Your task to perform on an android device: Clear the shopping cart on ebay.com. Add logitech g pro to the cart on ebay.com Image 0: 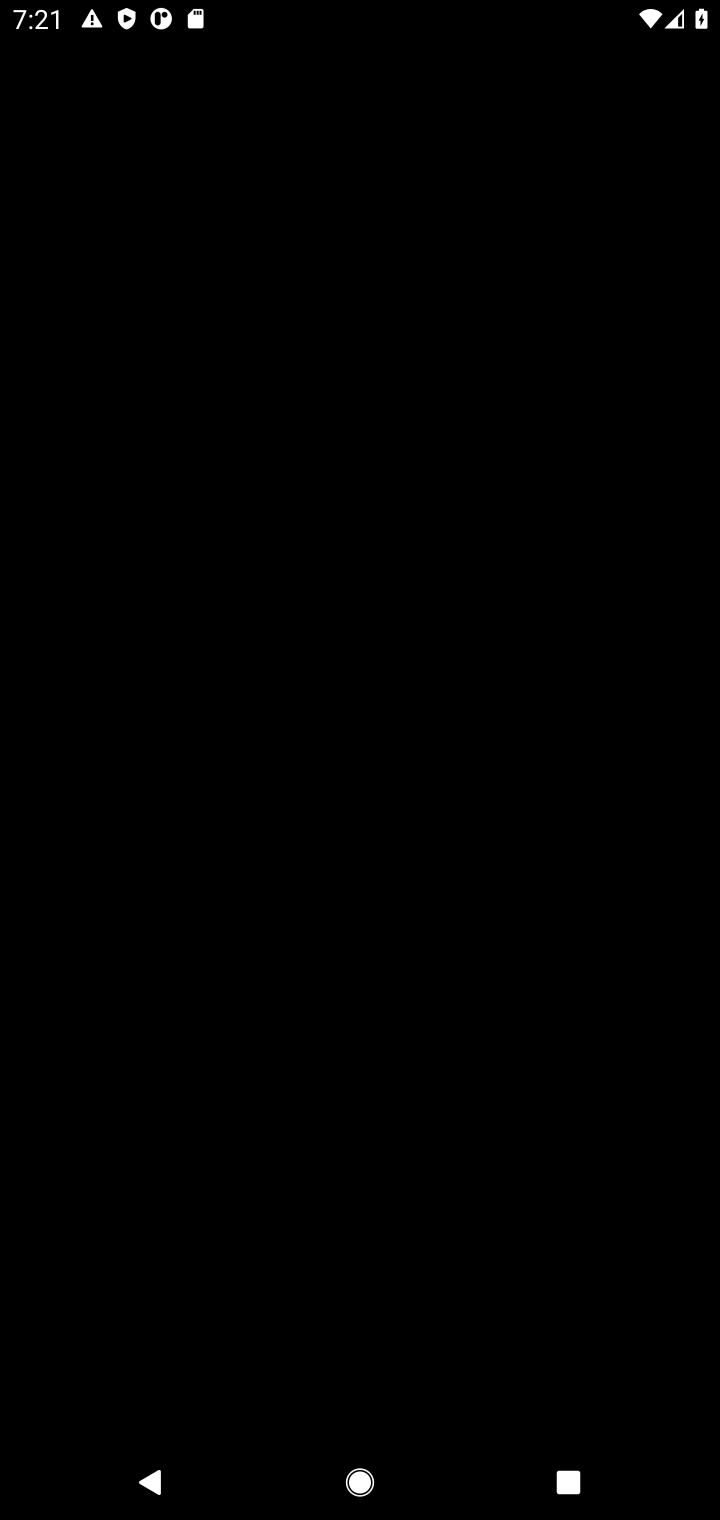
Step 0: press home button
Your task to perform on an android device: Clear the shopping cart on ebay.com. Add logitech g pro to the cart on ebay.com Image 1: 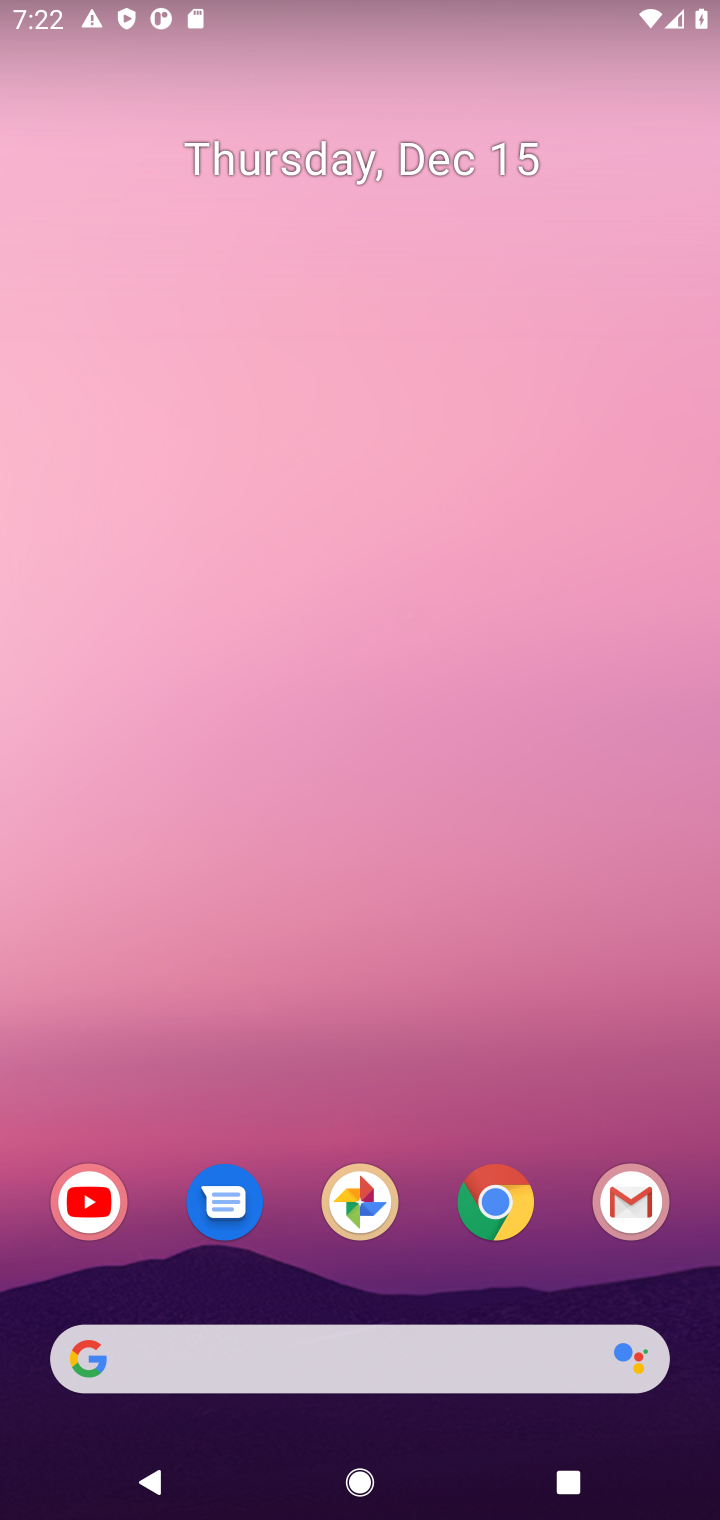
Step 1: click (494, 1221)
Your task to perform on an android device: Clear the shopping cart on ebay.com. Add logitech g pro to the cart on ebay.com Image 2: 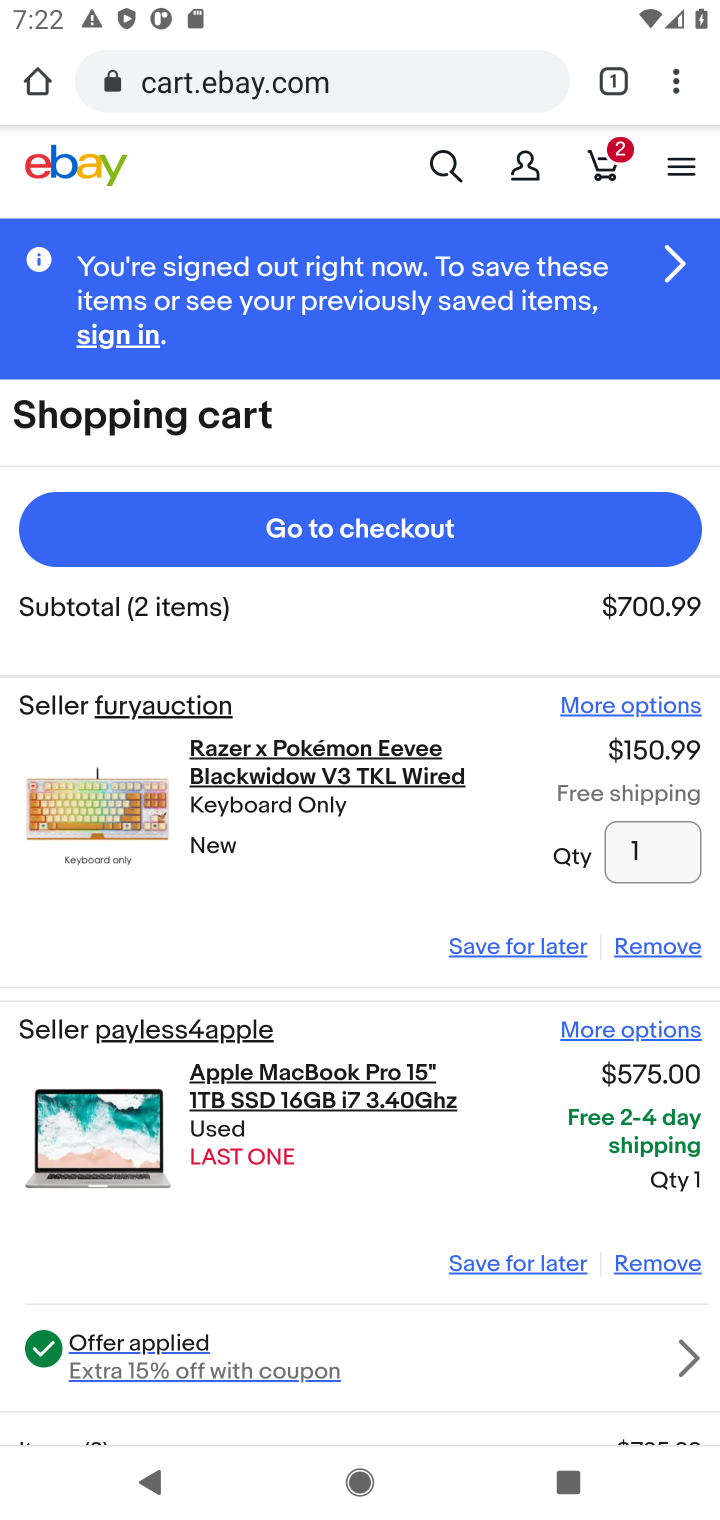
Step 2: click (624, 947)
Your task to perform on an android device: Clear the shopping cart on ebay.com. Add logitech g pro to the cart on ebay.com Image 3: 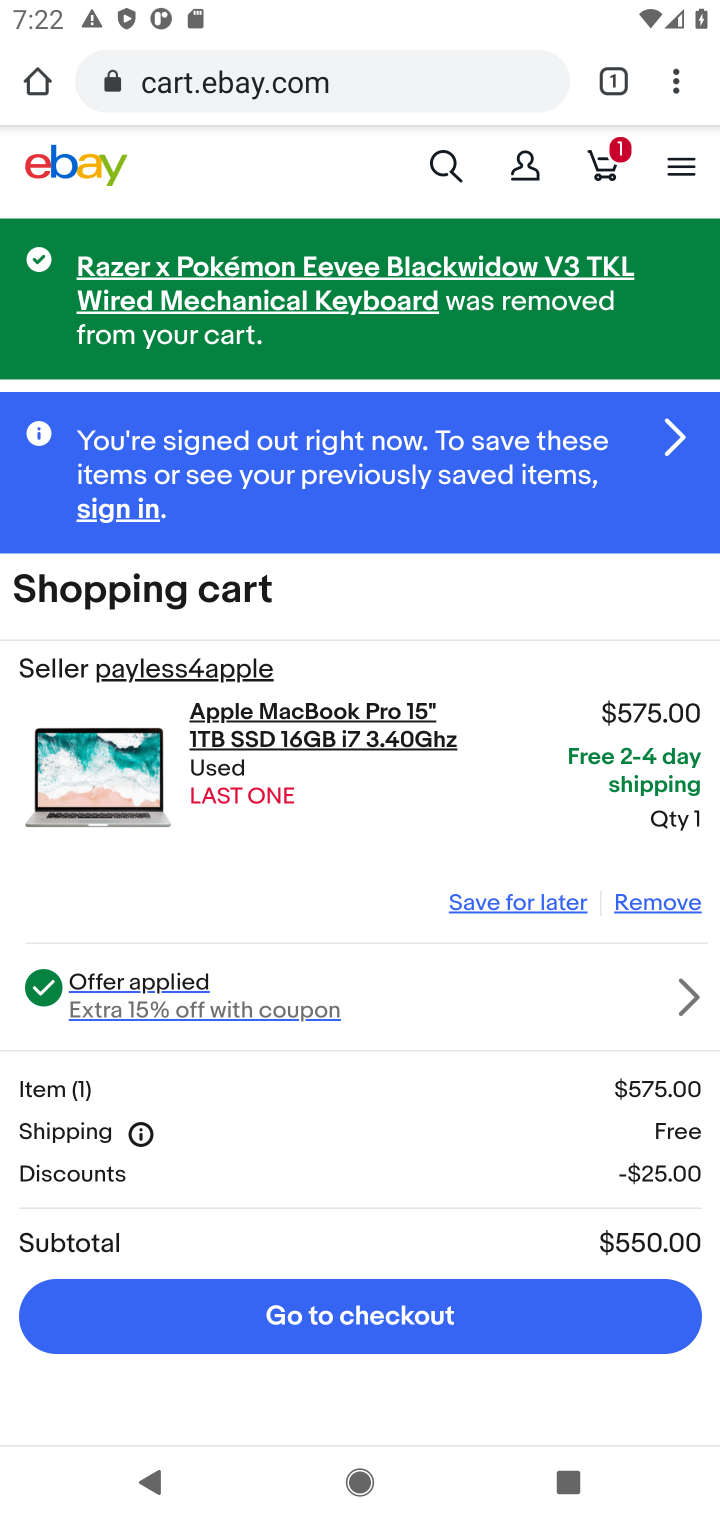
Step 3: click (651, 912)
Your task to perform on an android device: Clear the shopping cart on ebay.com. Add logitech g pro to the cart on ebay.com Image 4: 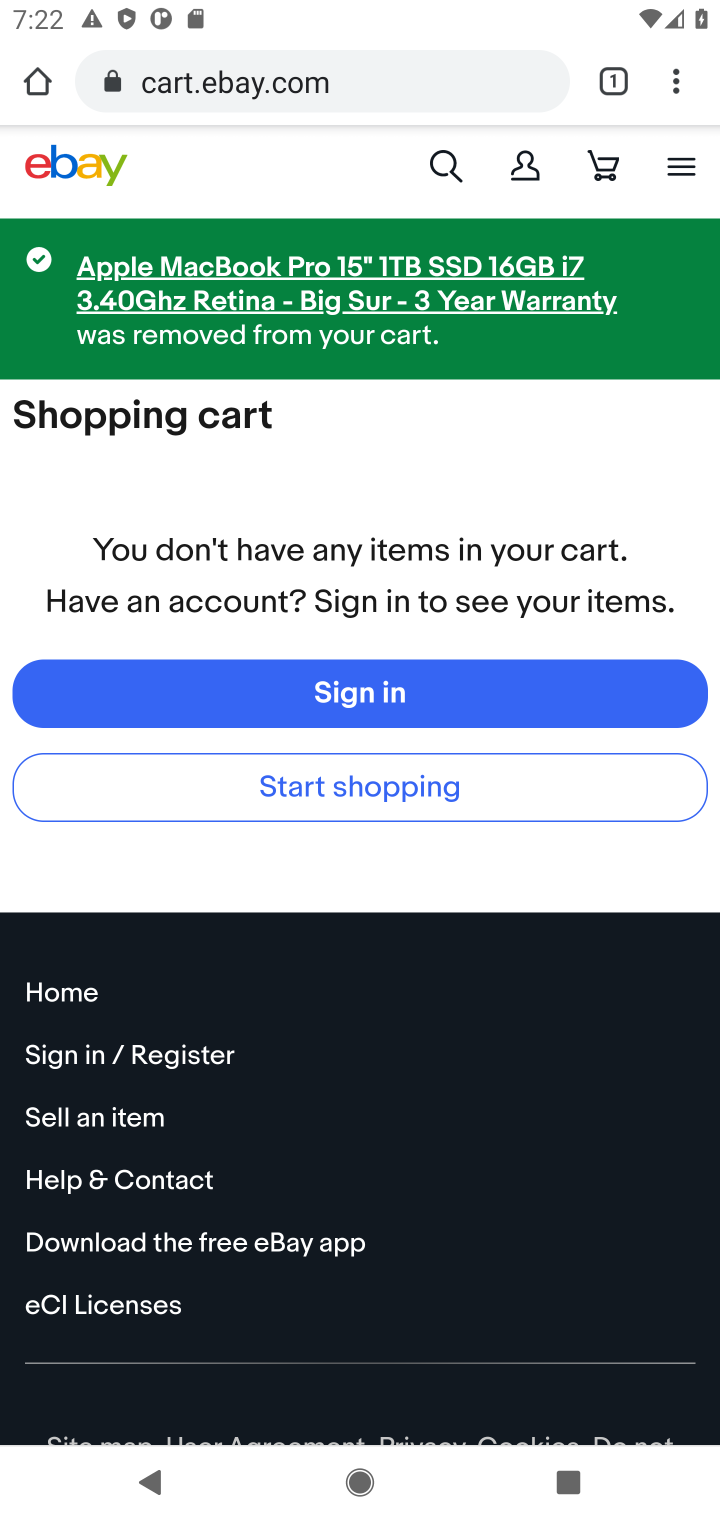
Step 4: click (447, 166)
Your task to perform on an android device: Clear the shopping cart on ebay.com. Add logitech g pro to the cart on ebay.com Image 5: 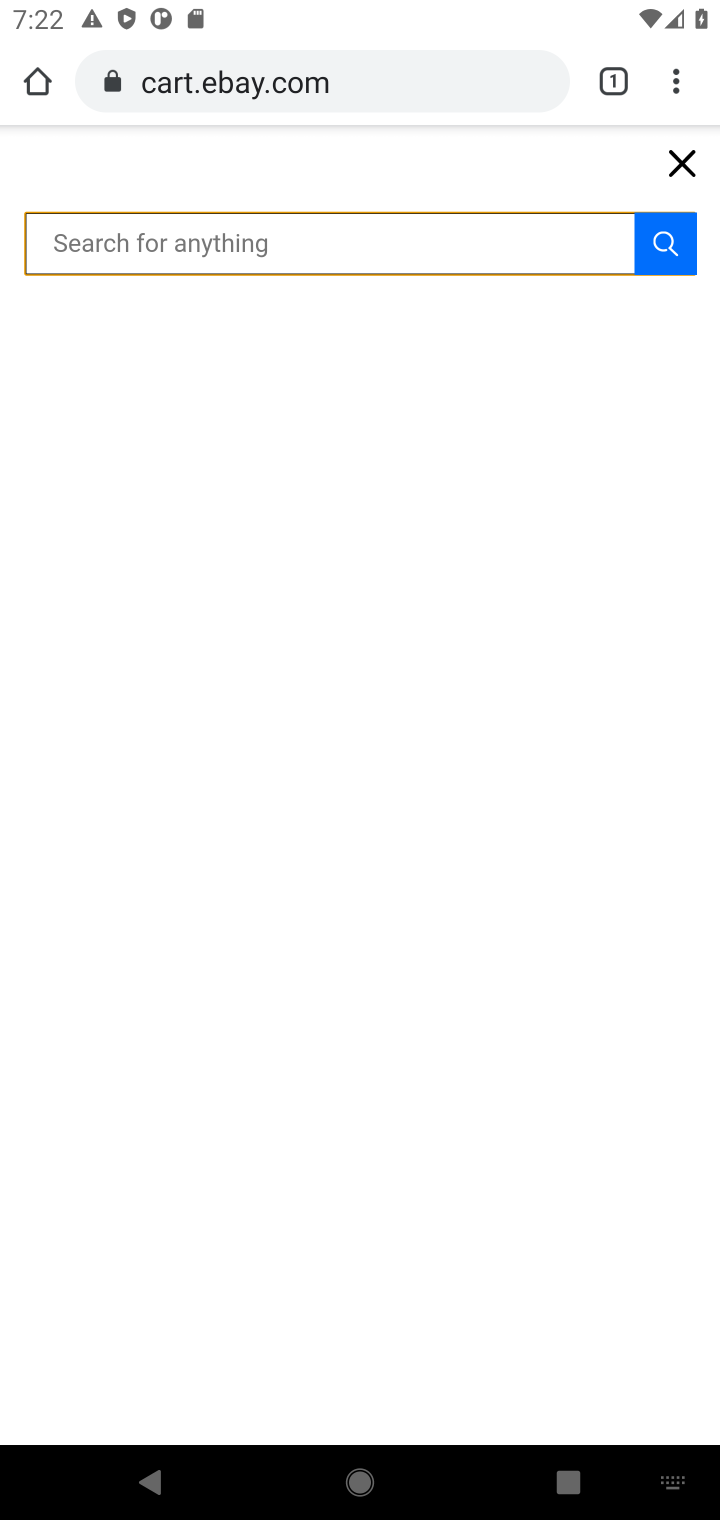
Step 5: type "logitech g pro"
Your task to perform on an android device: Clear the shopping cart on ebay.com. Add logitech g pro to the cart on ebay.com Image 6: 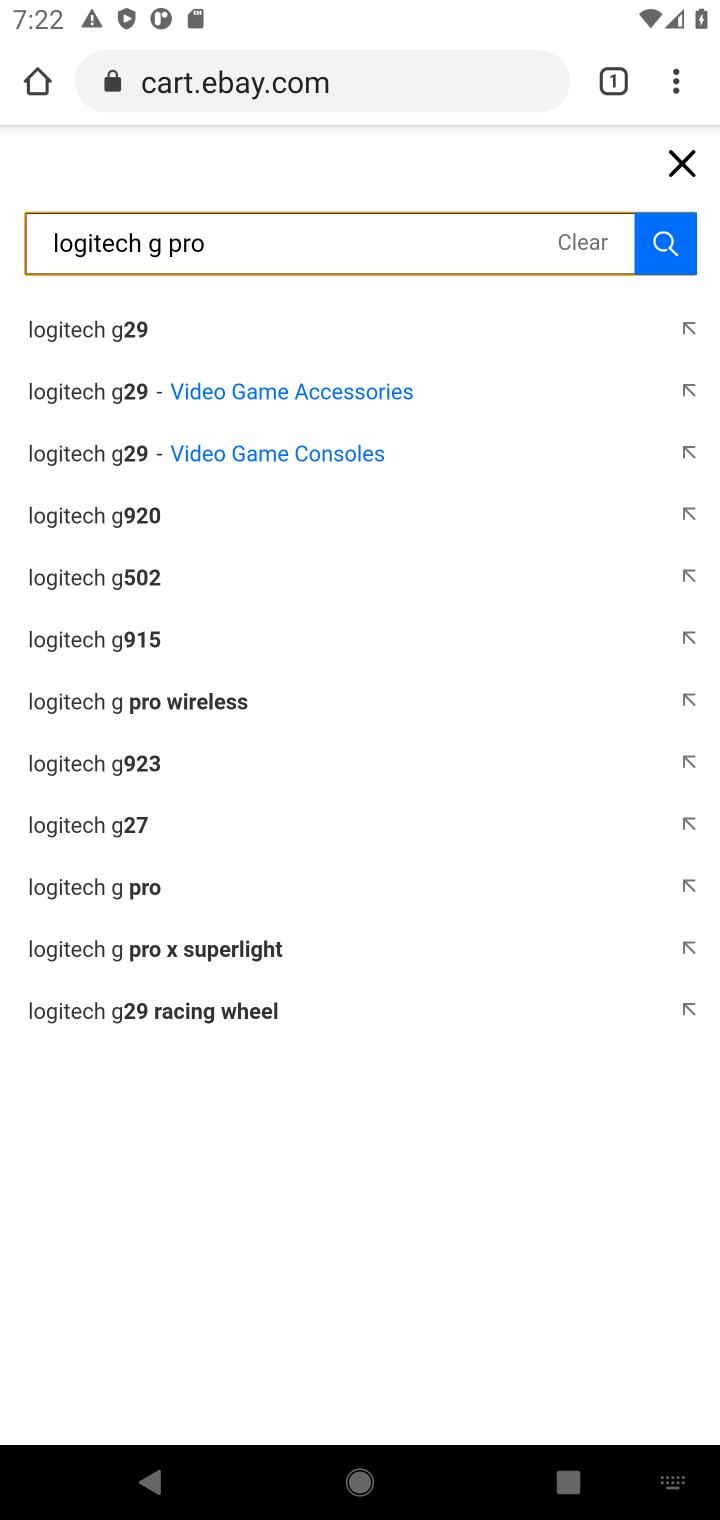
Step 6: click (98, 896)
Your task to perform on an android device: Clear the shopping cart on ebay.com. Add logitech g pro to the cart on ebay.com Image 7: 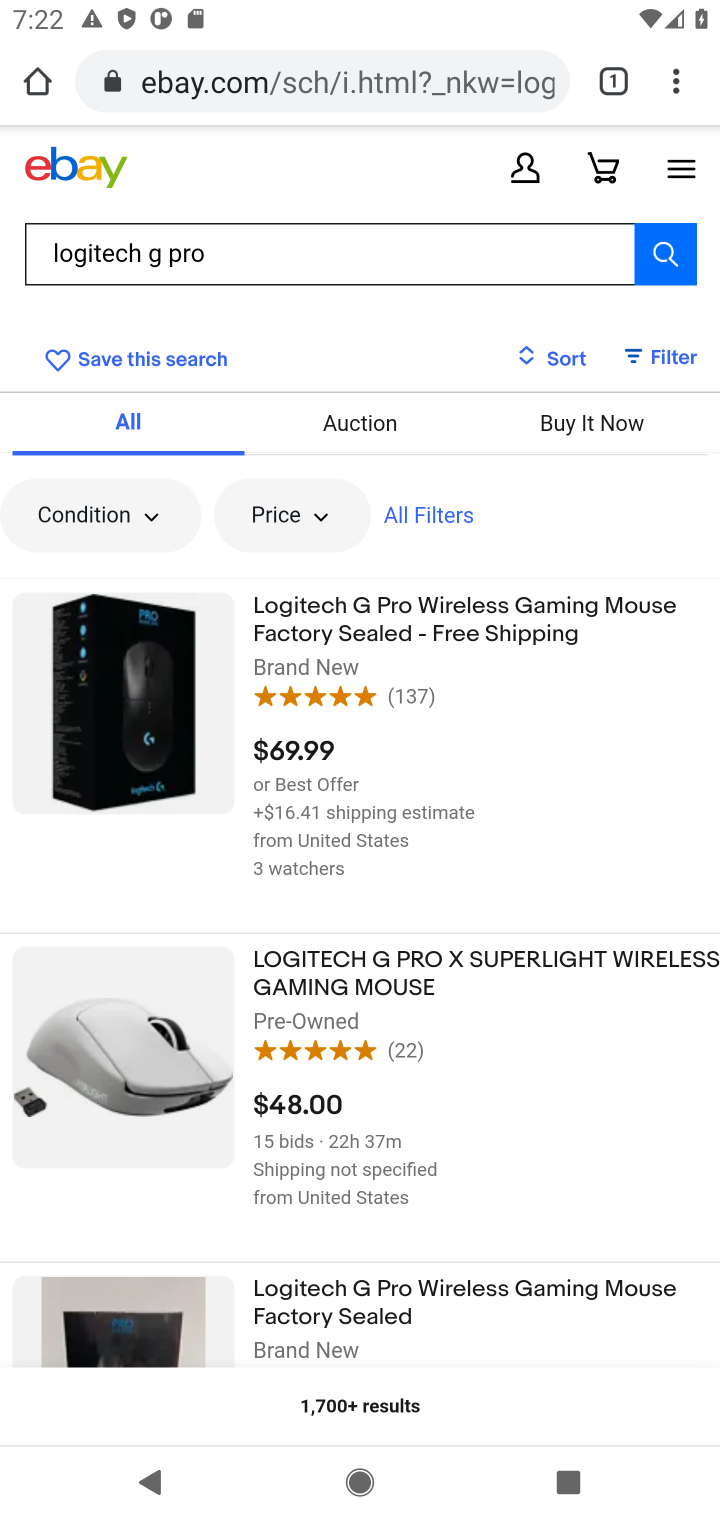
Step 7: click (333, 625)
Your task to perform on an android device: Clear the shopping cart on ebay.com. Add logitech g pro to the cart on ebay.com Image 8: 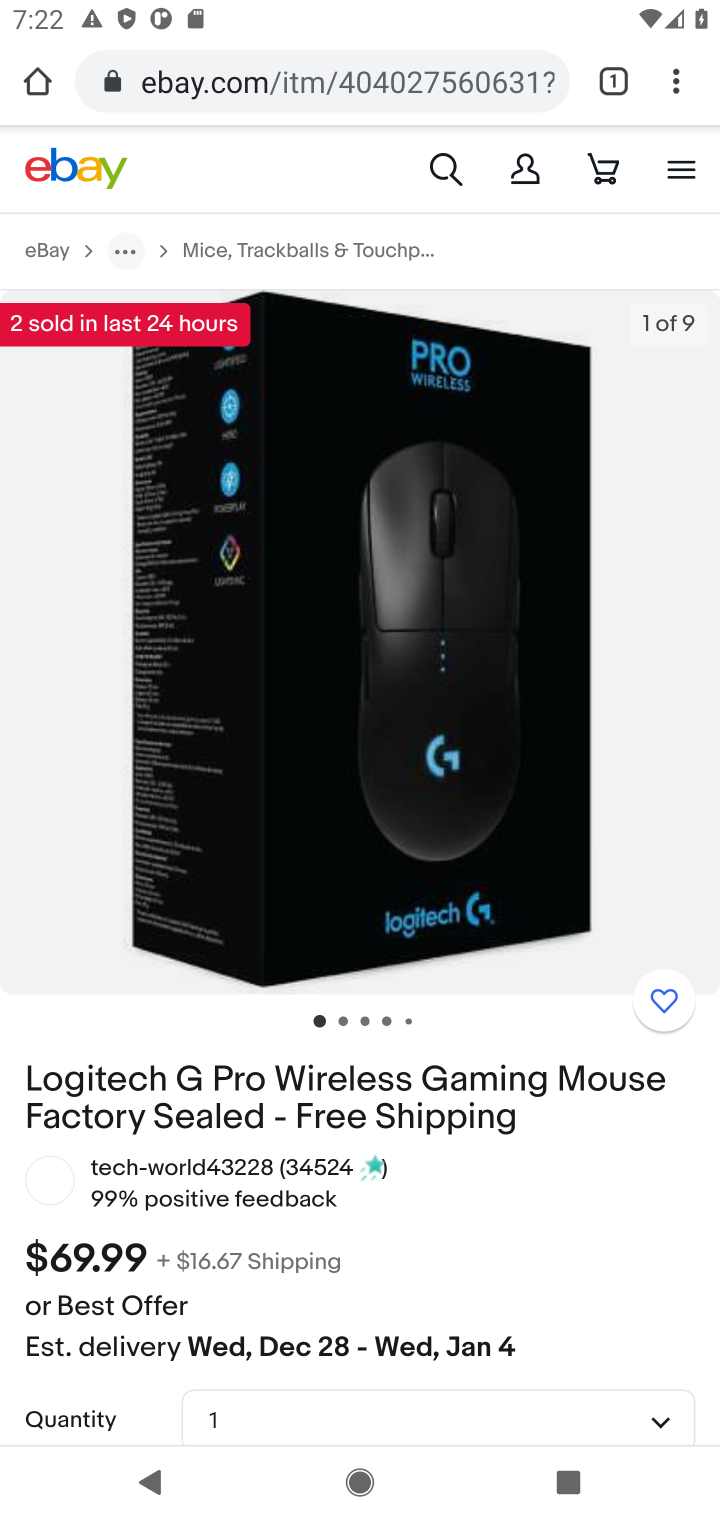
Step 8: drag from (293, 1023) to (277, 603)
Your task to perform on an android device: Clear the shopping cart on ebay.com. Add logitech g pro to the cart on ebay.com Image 9: 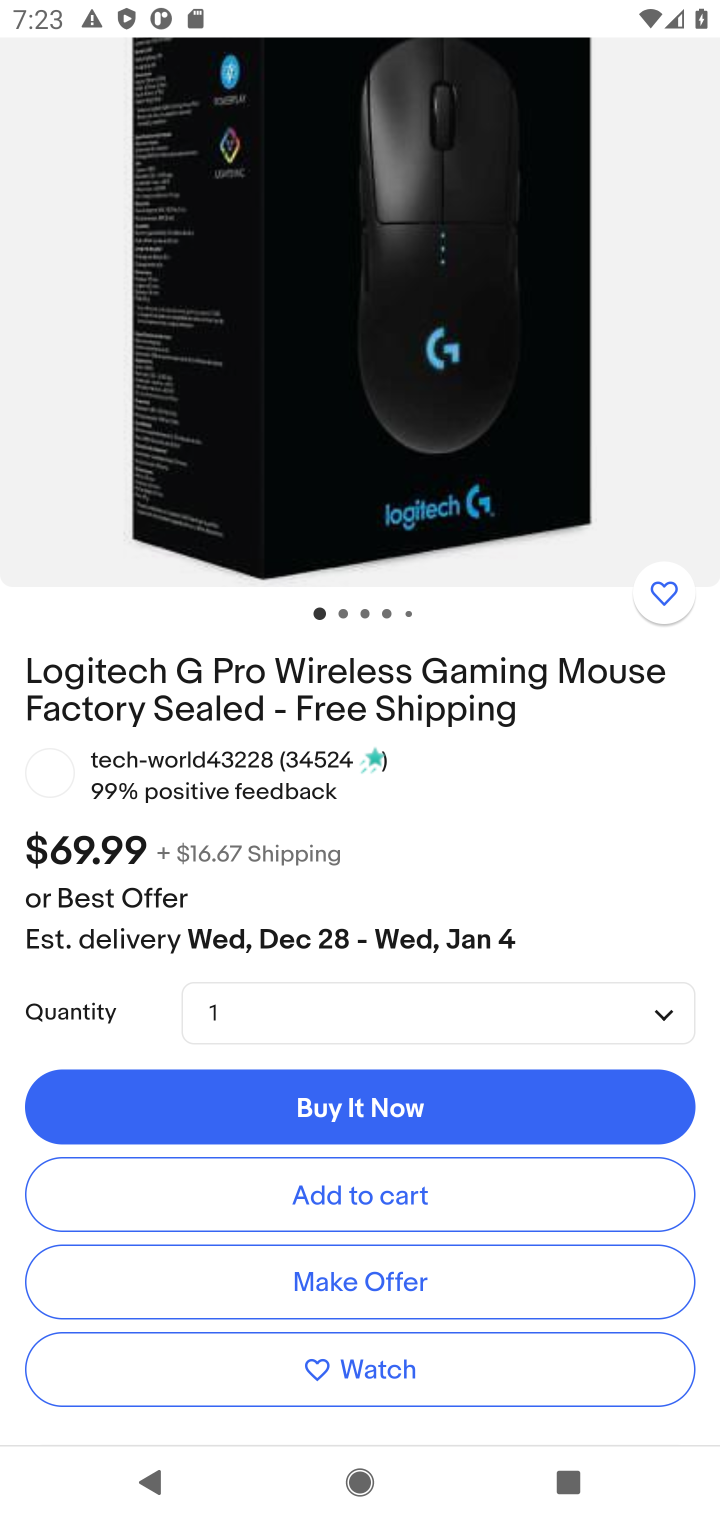
Step 9: click (303, 1202)
Your task to perform on an android device: Clear the shopping cart on ebay.com. Add logitech g pro to the cart on ebay.com Image 10: 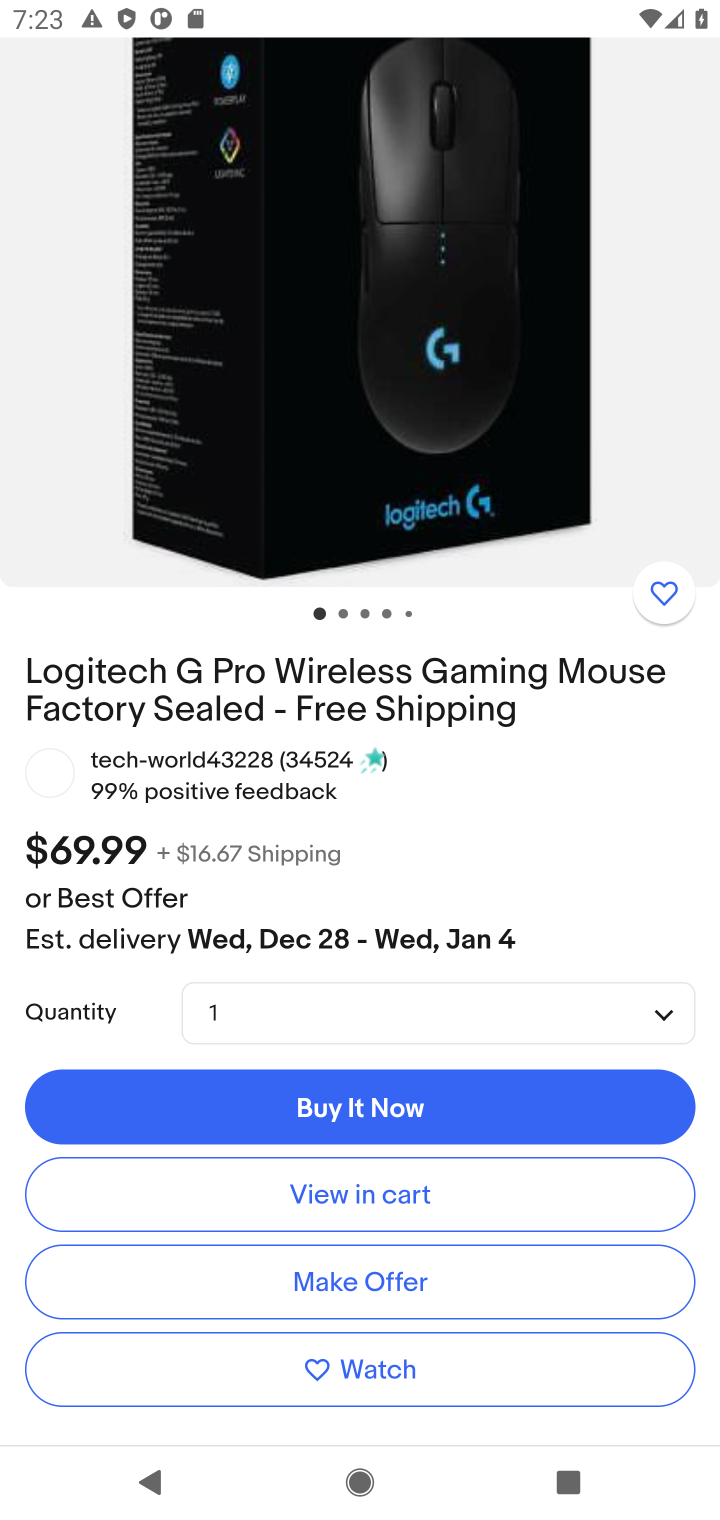
Step 10: task complete